Your task to perform on an android device: What is the news today? Image 0: 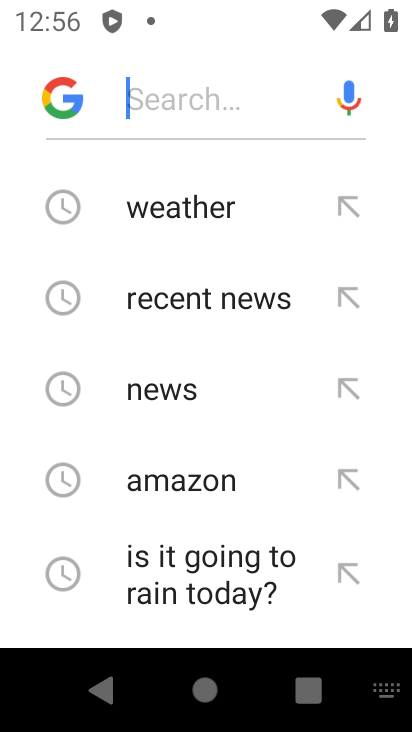
Step 0: press home button
Your task to perform on an android device: What is the news today? Image 1: 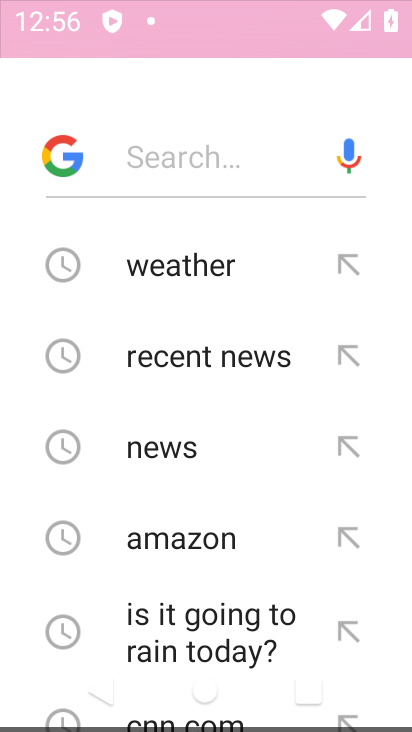
Step 1: drag from (203, 524) to (294, 171)
Your task to perform on an android device: What is the news today? Image 2: 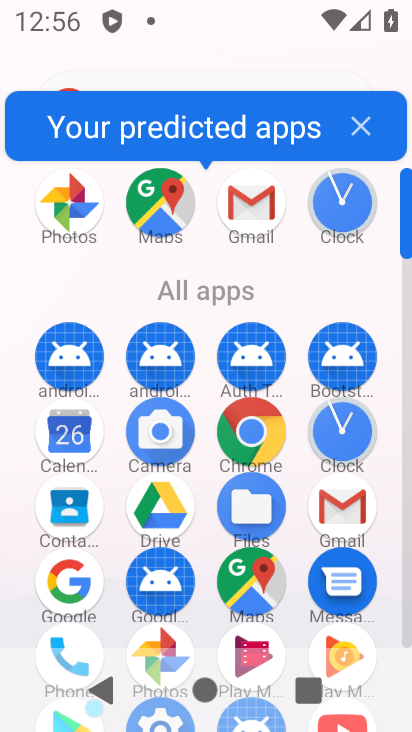
Step 2: click (359, 134)
Your task to perform on an android device: What is the news today? Image 3: 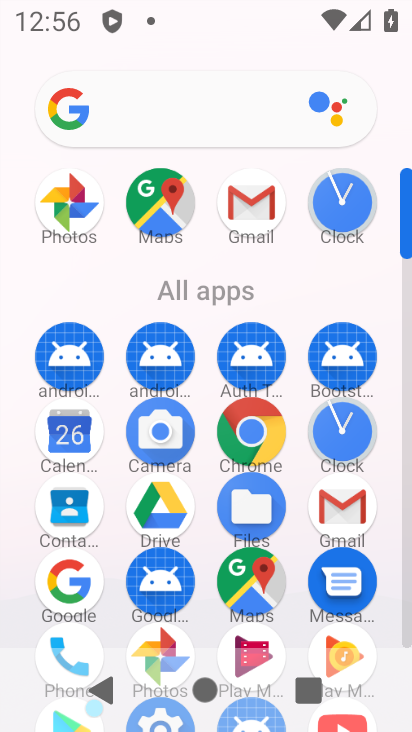
Step 3: click (167, 111)
Your task to perform on an android device: What is the news today? Image 4: 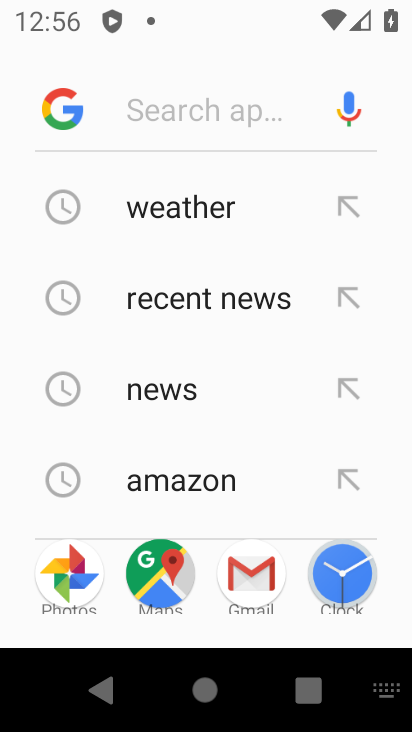
Step 4: type "news today"
Your task to perform on an android device: What is the news today? Image 5: 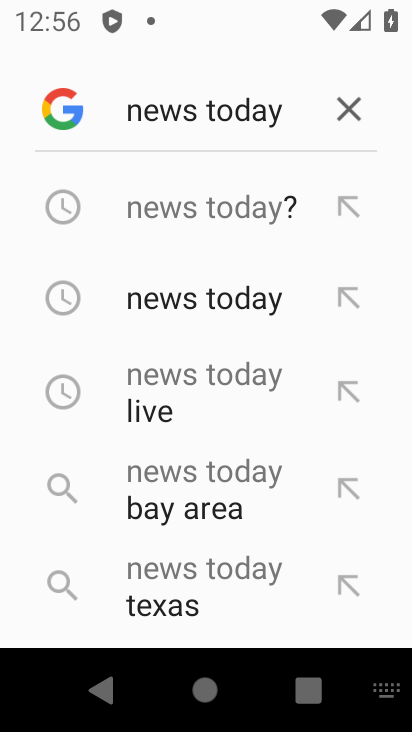
Step 5: click (261, 173)
Your task to perform on an android device: What is the news today? Image 6: 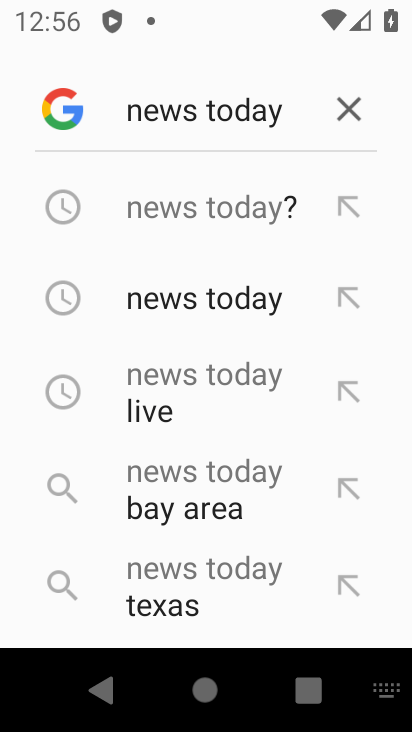
Step 6: click (246, 187)
Your task to perform on an android device: What is the news today? Image 7: 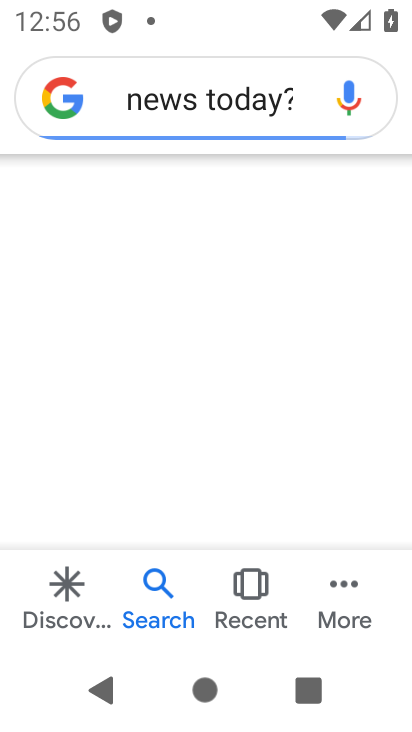
Step 7: task complete